Your task to perform on an android device: toggle data saver in the chrome app Image 0: 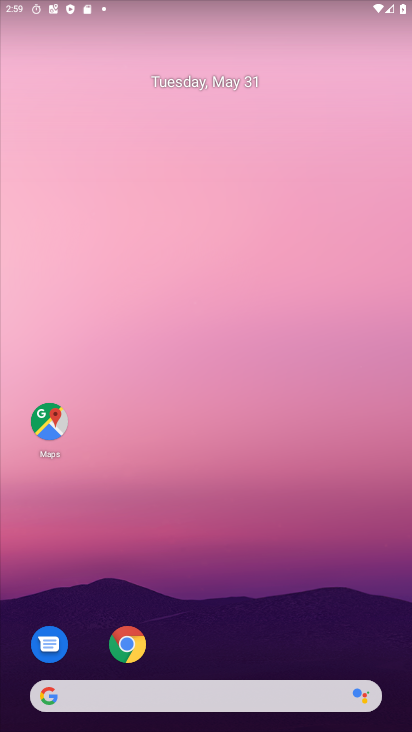
Step 0: drag from (402, 711) to (326, 149)
Your task to perform on an android device: toggle data saver in the chrome app Image 1: 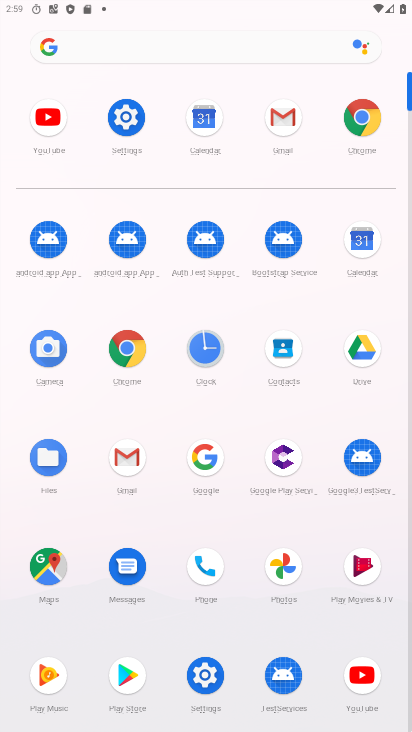
Step 1: click (357, 118)
Your task to perform on an android device: toggle data saver in the chrome app Image 2: 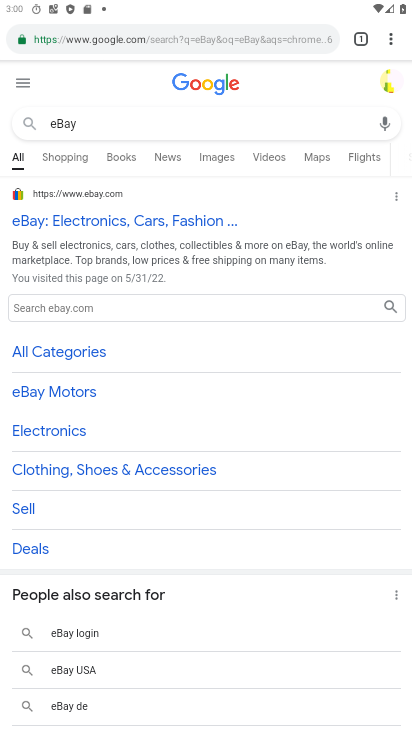
Step 2: click (388, 38)
Your task to perform on an android device: toggle data saver in the chrome app Image 3: 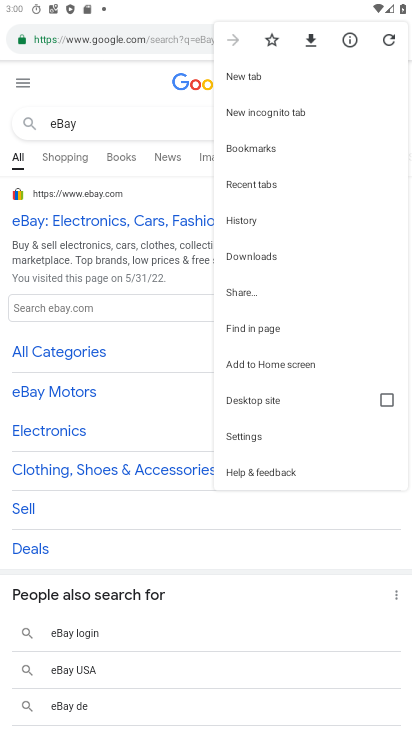
Step 3: click (228, 434)
Your task to perform on an android device: toggle data saver in the chrome app Image 4: 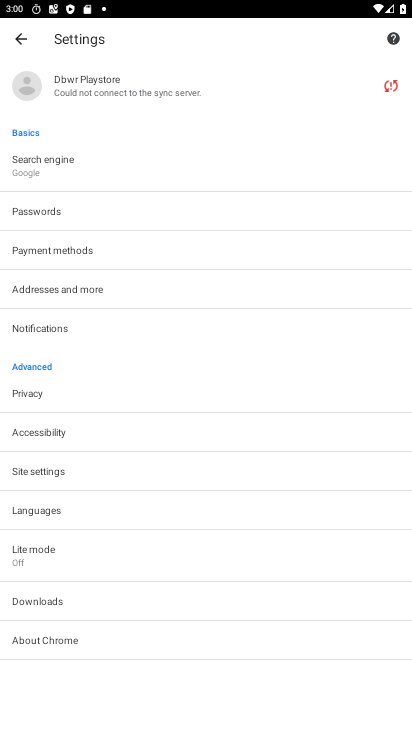
Step 4: click (34, 544)
Your task to perform on an android device: toggle data saver in the chrome app Image 5: 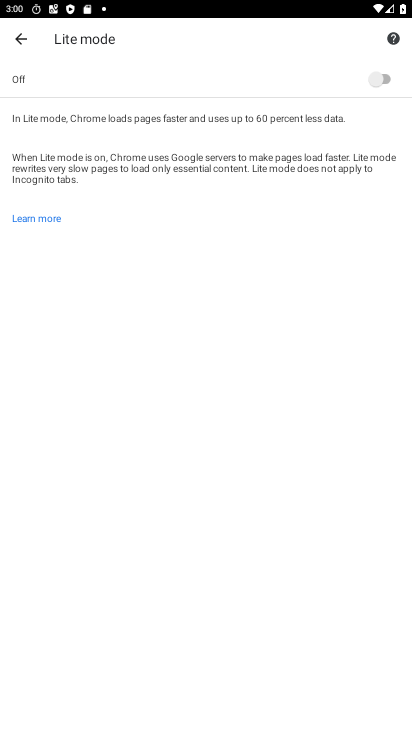
Step 5: click (385, 83)
Your task to perform on an android device: toggle data saver in the chrome app Image 6: 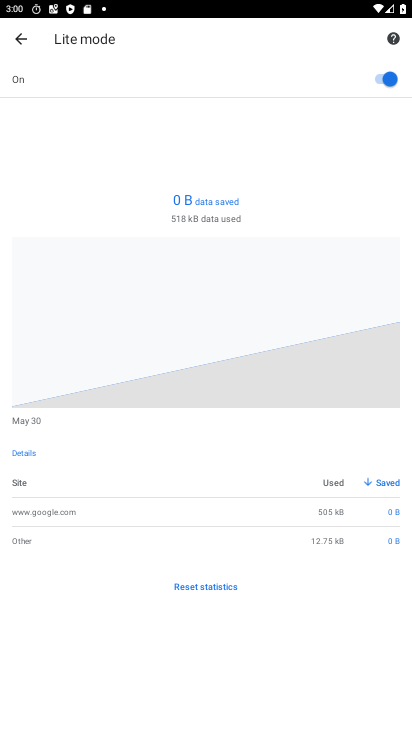
Step 6: task complete